Your task to perform on an android device: Go to display settings Image 0: 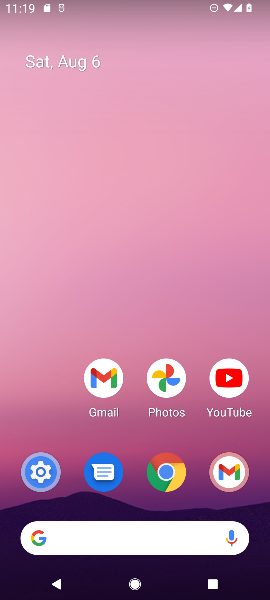
Step 0: drag from (104, 428) to (104, 105)
Your task to perform on an android device: Go to display settings Image 1: 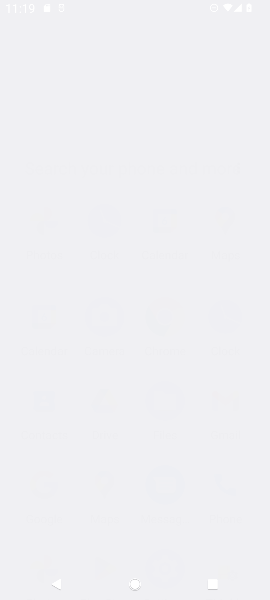
Step 1: drag from (161, 558) to (161, 209)
Your task to perform on an android device: Go to display settings Image 2: 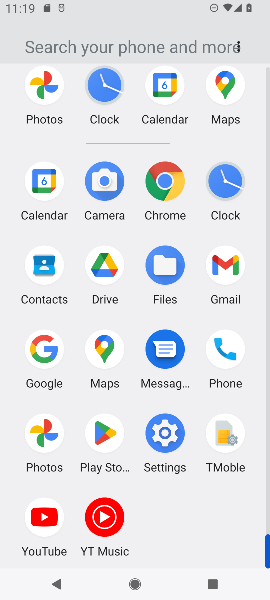
Step 2: click (160, 429)
Your task to perform on an android device: Go to display settings Image 3: 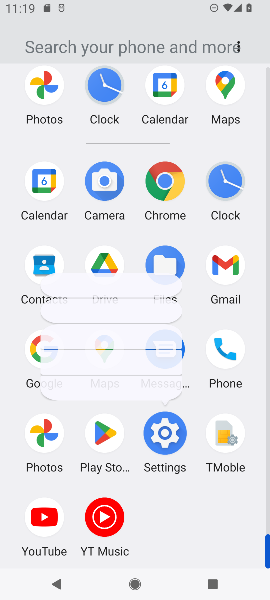
Step 3: click (164, 439)
Your task to perform on an android device: Go to display settings Image 4: 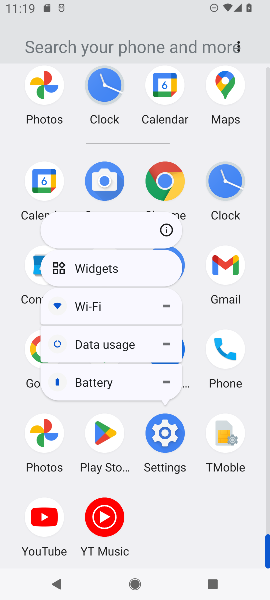
Step 4: click (166, 440)
Your task to perform on an android device: Go to display settings Image 5: 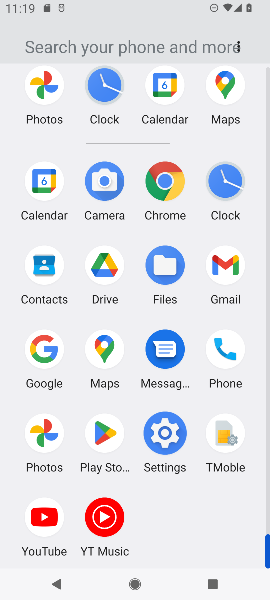
Step 5: click (167, 444)
Your task to perform on an android device: Go to display settings Image 6: 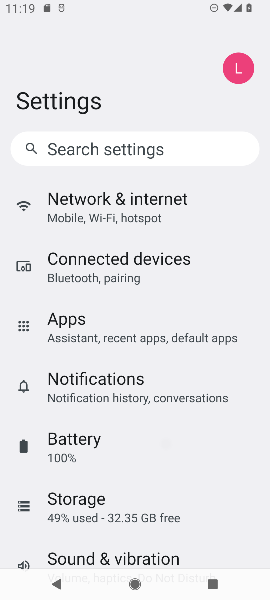
Step 6: click (167, 445)
Your task to perform on an android device: Go to display settings Image 7: 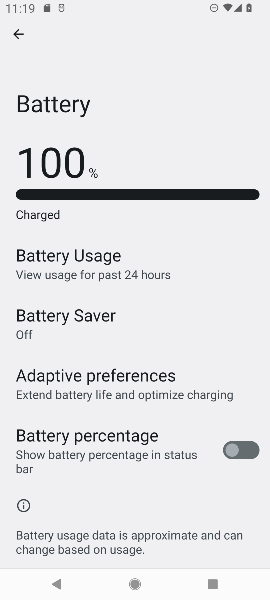
Step 7: click (20, 32)
Your task to perform on an android device: Go to display settings Image 8: 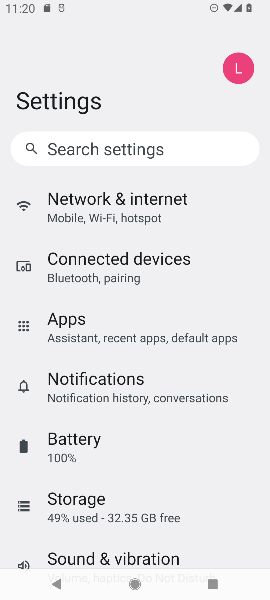
Step 8: drag from (85, 416) to (84, 171)
Your task to perform on an android device: Go to display settings Image 9: 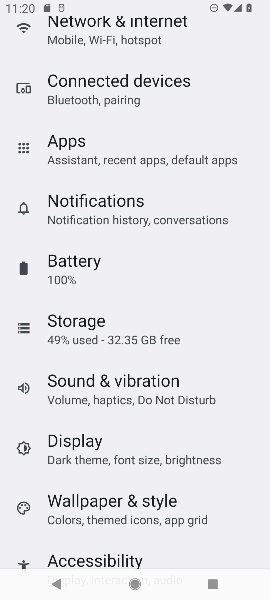
Step 9: drag from (137, 431) to (136, 159)
Your task to perform on an android device: Go to display settings Image 10: 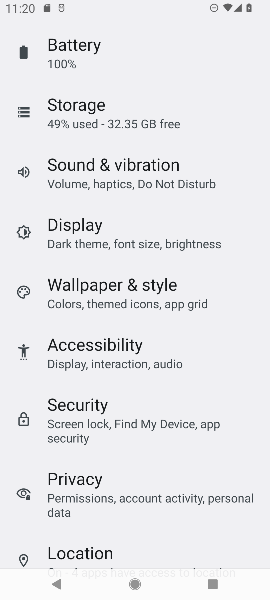
Step 10: drag from (134, 334) to (125, 154)
Your task to perform on an android device: Go to display settings Image 11: 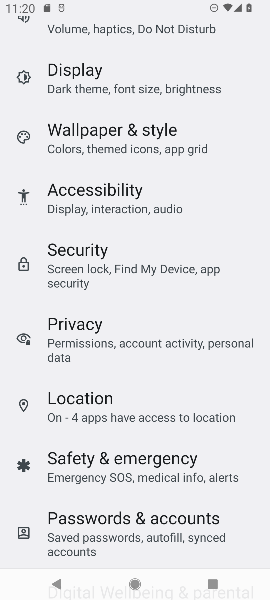
Step 11: drag from (184, 407) to (164, 257)
Your task to perform on an android device: Go to display settings Image 12: 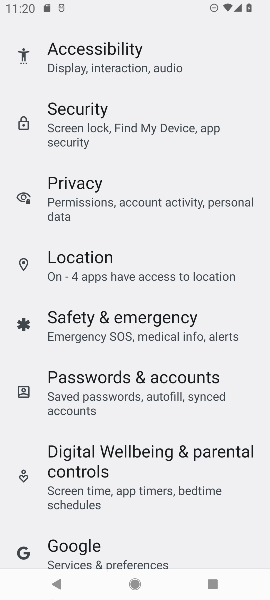
Step 12: drag from (96, 448) to (85, 157)
Your task to perform on an android device: Go to display settings Image 13: 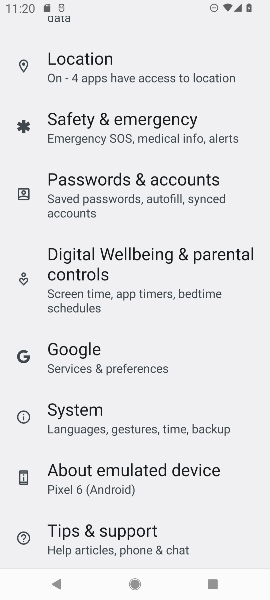
Step 13: drag from (117, 400) to (117, 127)
Your task to perform on an android device: Go to display settings Image 14: 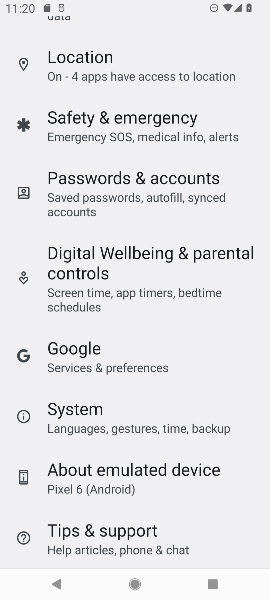
Step 14: drag from (121, 378) to (122, 179)
Your task to perform on an android device: Go to display settings Image 15: 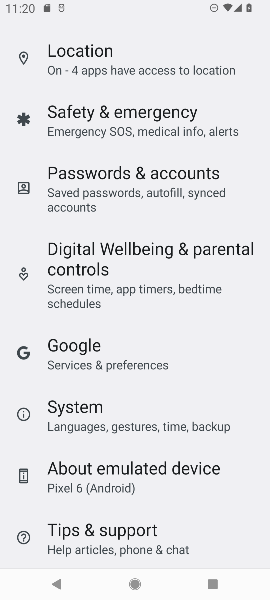
Step 15: drag from (150, 401) to (131, 235)
Your task to perform on an android device: Go to display settings Image 16: 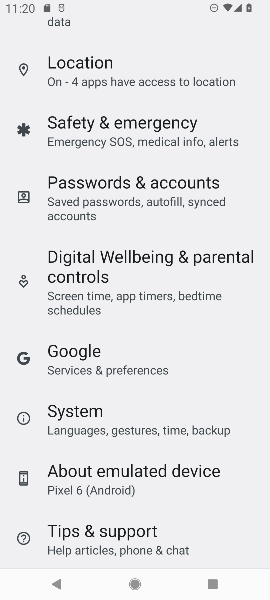
Step 16: drag from (99, 191) to (99, 479)
Your task to perform on an android device: Go to display settings Image 17: 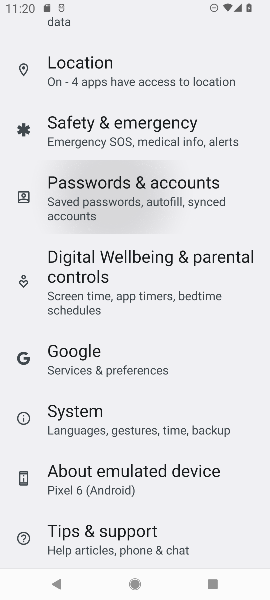
Step 17: drag from (70, 202) to (76, 530)
Your task to perform on an android device: Go to display settings Image 18: 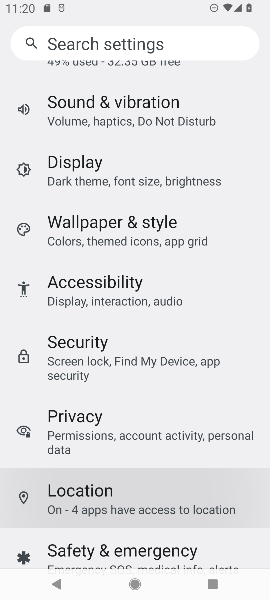
Step 18: drag from (42, 253) to (113, 551)
Your task to perform on an android device: Go to display settings Image 19: 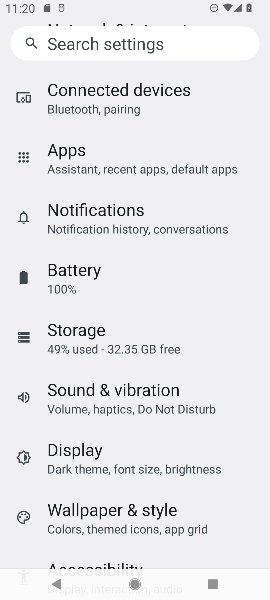
Step 19: drag from (97, 255) to (216, 597)
Your task to perform on an android device: Go to display settings Image 20: 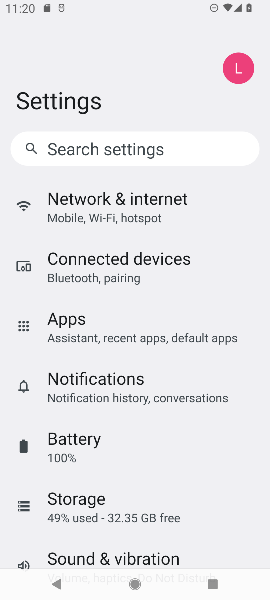
Step 20: drag from (137, 401) to (120, 229)
Your task to perform on an android device: Go to display settings Image 21: 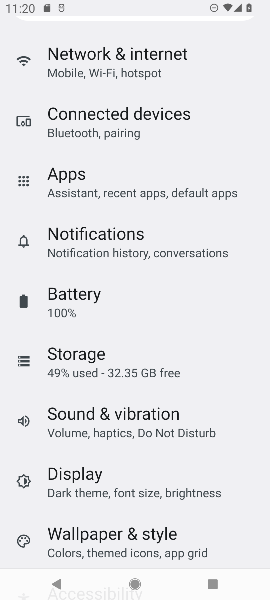
Step 21: drag from (116, 390) to (102, 281)
Your task to perform on an android device: Go to display settings Image 22: 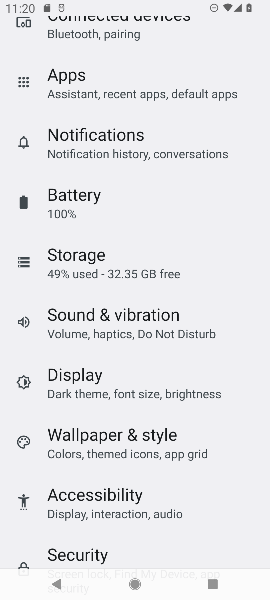
Step 22: click (66, 374)
Your task to perform on an android device: Go to display settings Image 23: 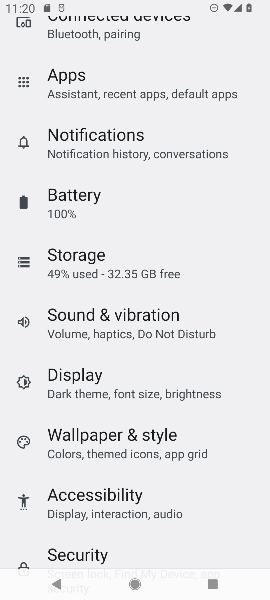
Step 23: click (68, 373)
Your task to perform on an android device: Go to display settings Image 24: 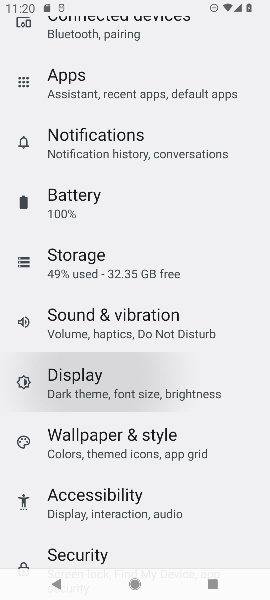
Step 24: click (69, 373)
Your task to perform on an android device: Go to display settings Image 25: 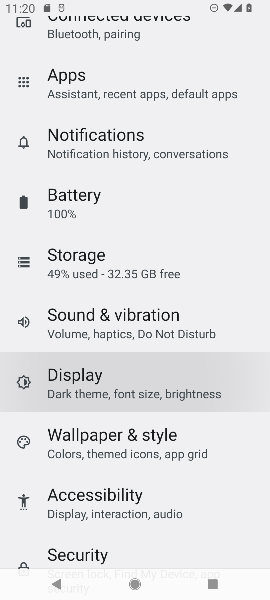
Step 25: click (75, 396)
Your task to perform on an android device: Go to display settings Image 26: 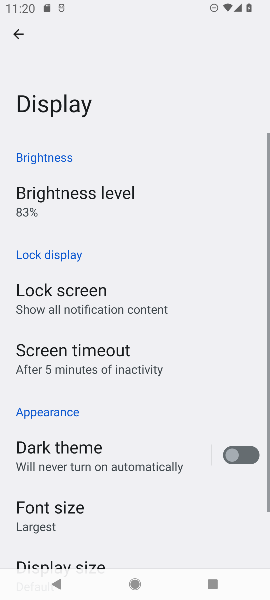
Step 26: click (78, 399)
Your task to perform on an android device: Go to display settings Image 27: 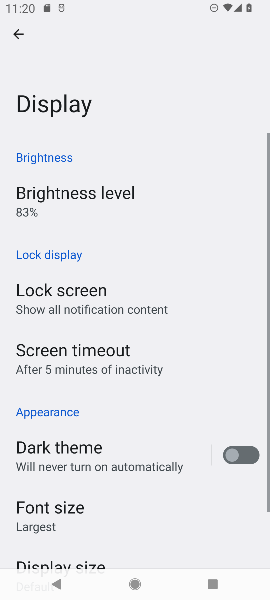
Step 27: click (78, 399)
Your task to perform on an android device: Go to display settings Image 28: 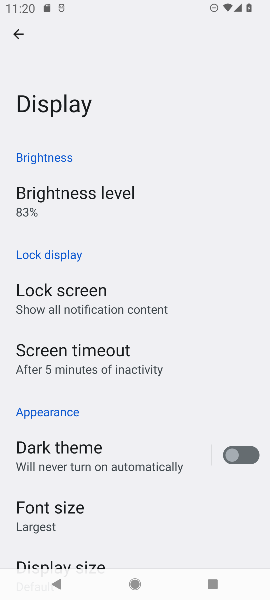
Step 28: task complete